Your task to perform on an android device: Check the weather Image 0: 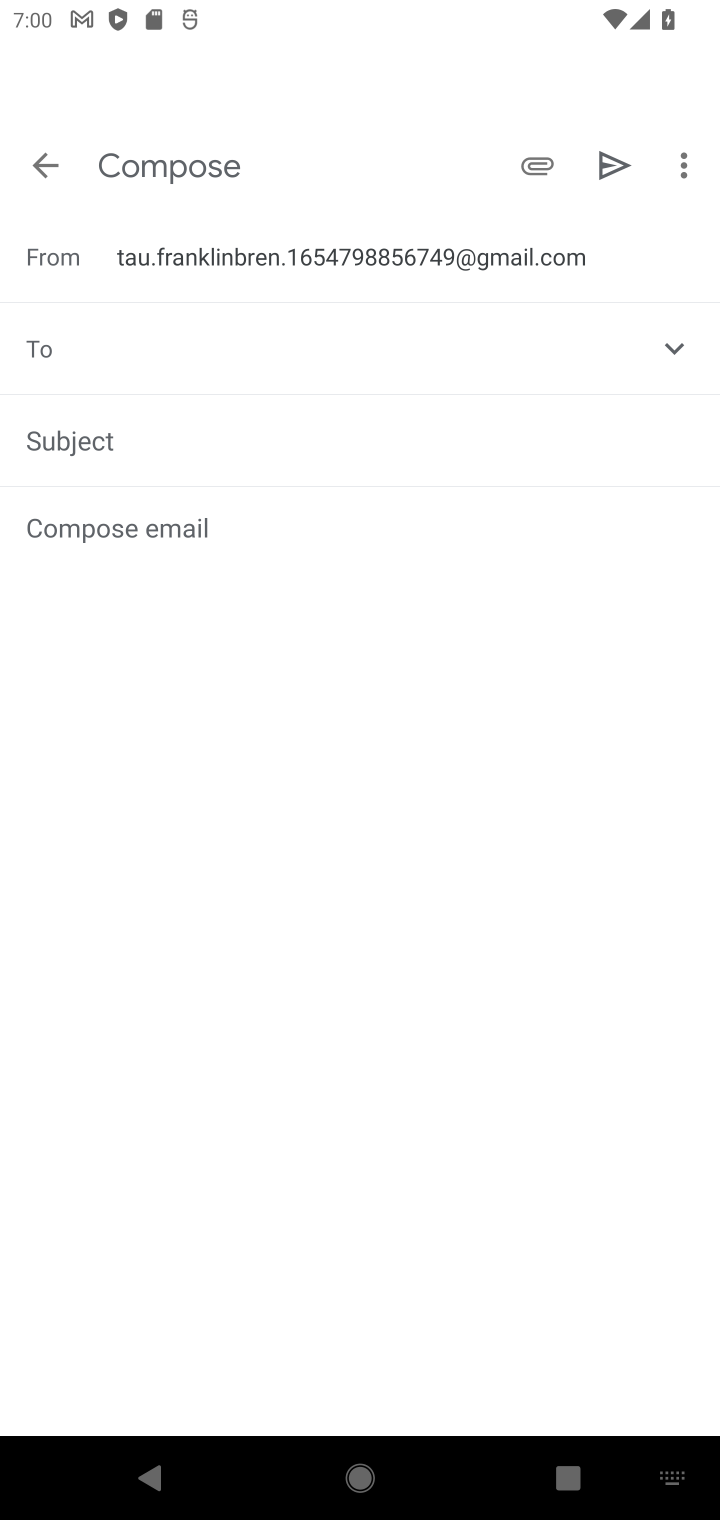
Step 0: press home button
Your task to perform on an android device: Check the weather Image 1: 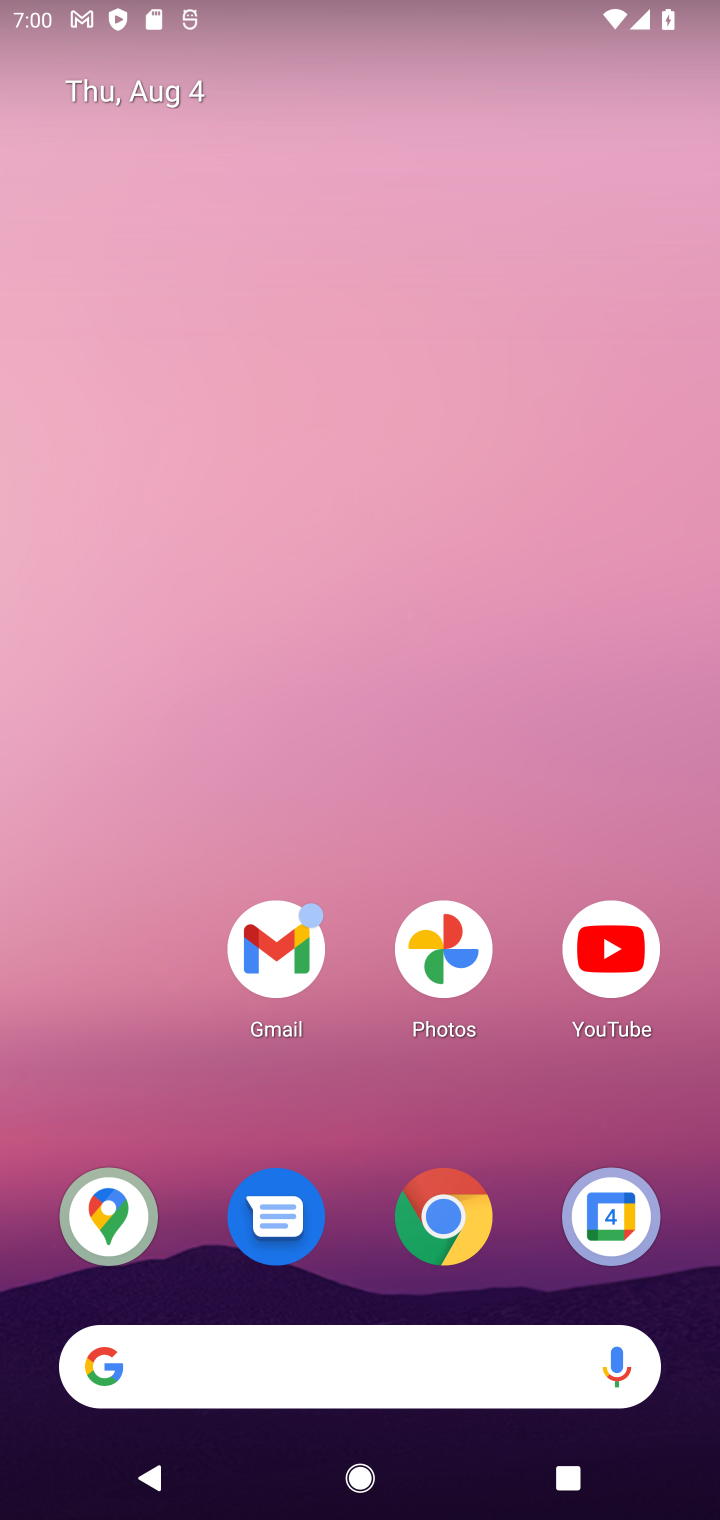
Step 1: press home button
Your task to perform on an android device: Check the weather Image 2: 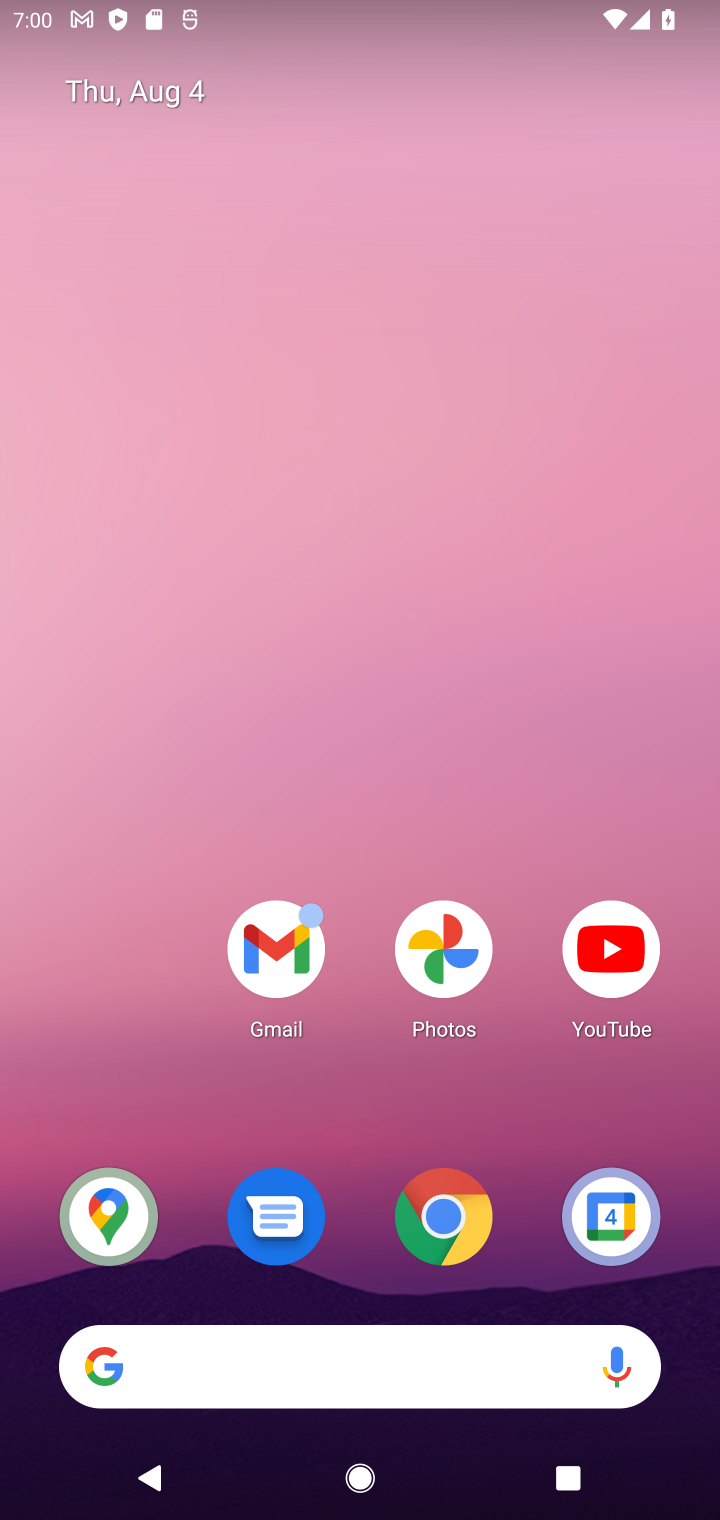
Step 2: drag from (362, 1316) to (232, 23)
Your task to perform on an android device: Check the weather Image 3: 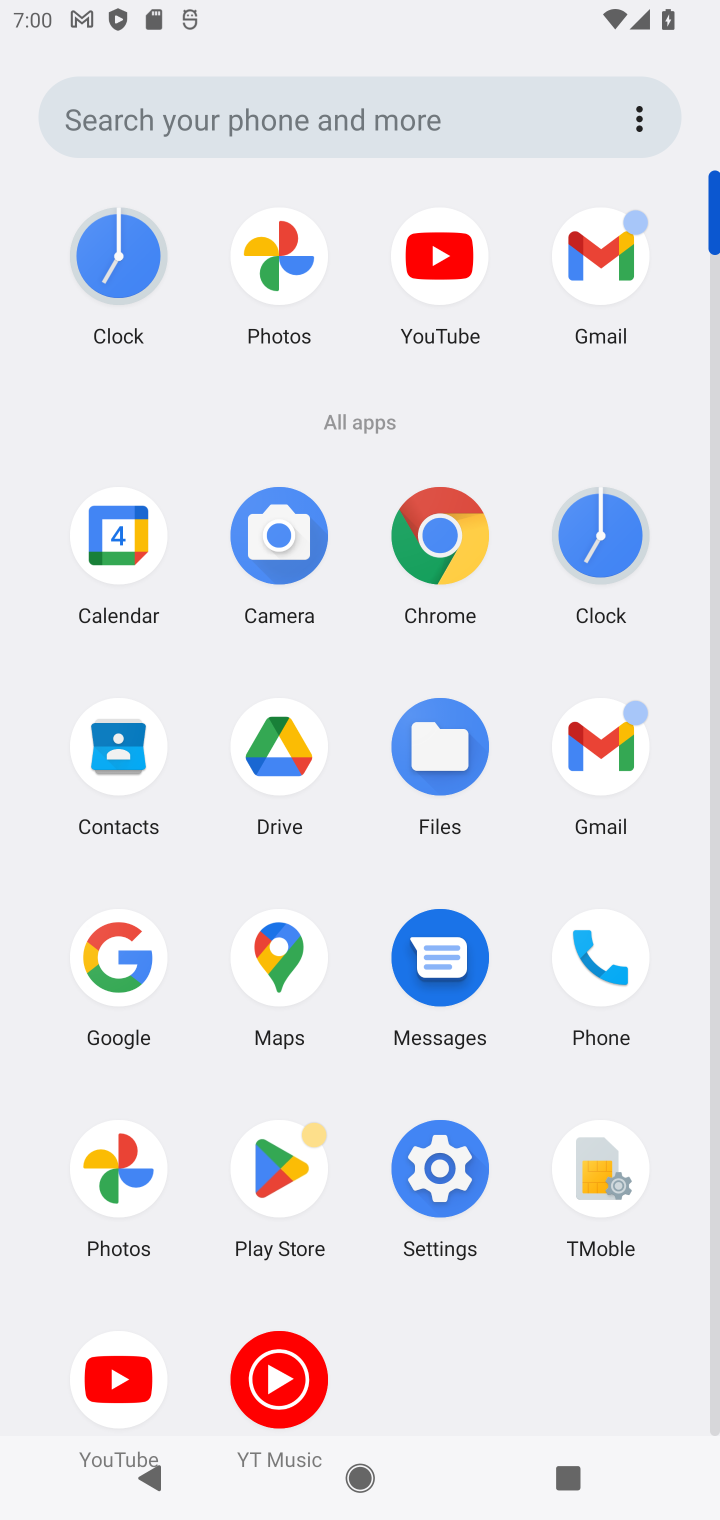
Step 3: click (93, 966)
Your task to perform on an android device: Check the weather Image 4: 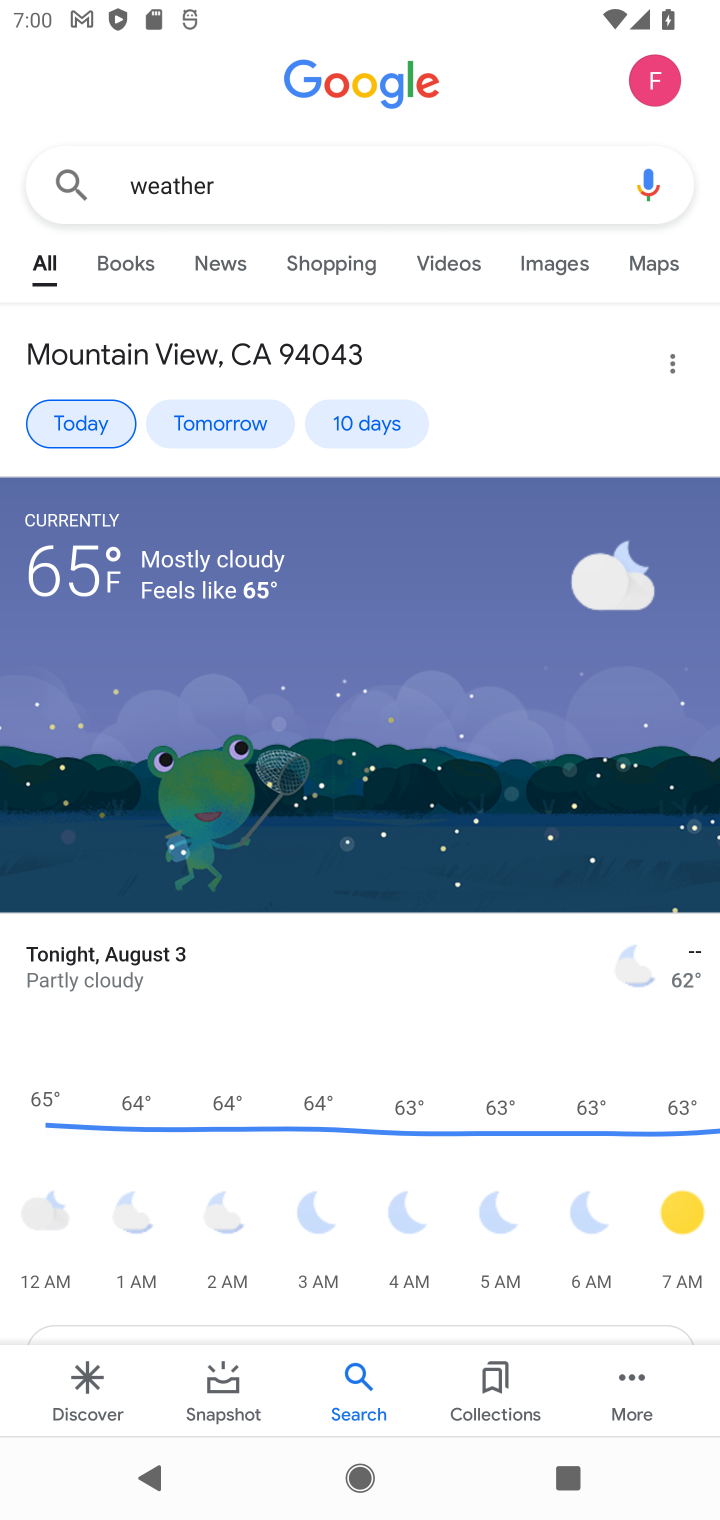
Step 4: click (74, 411)
Your task to perform on an android device: Check the weather Image 5: 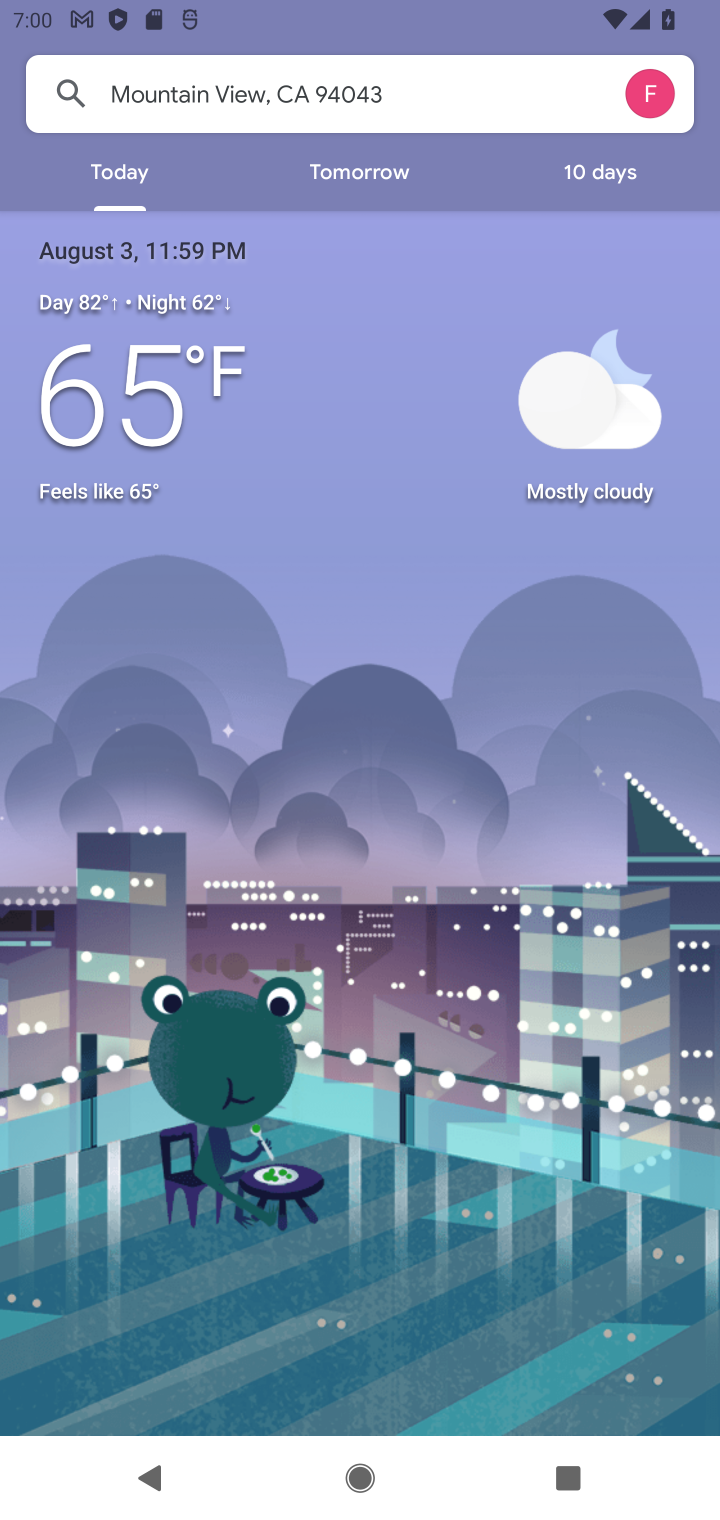
Step 5: task complete